Your task to perform on an android device: check google app version Image 0: 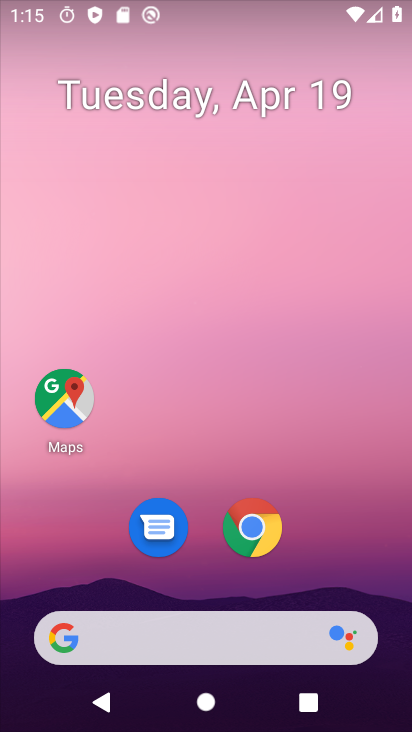
Step 0: drag from (319, 575) to (318, 261)
Your task to perform on an android device: check google app version Image 1: 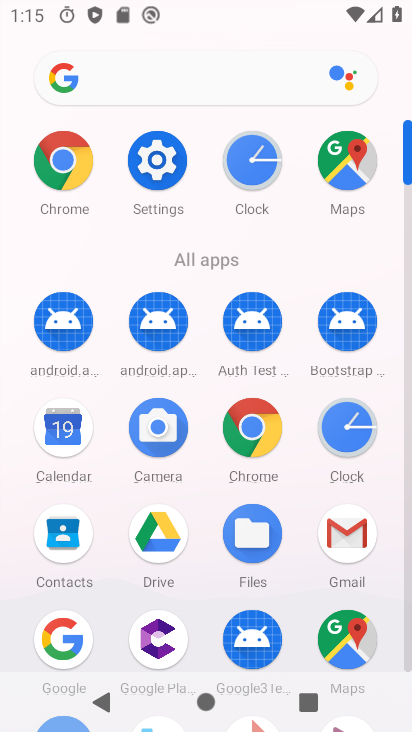
Step 1: drag from (204, 516) to (209, 419)
Your task to perform on an android device: check google app version Image 2: 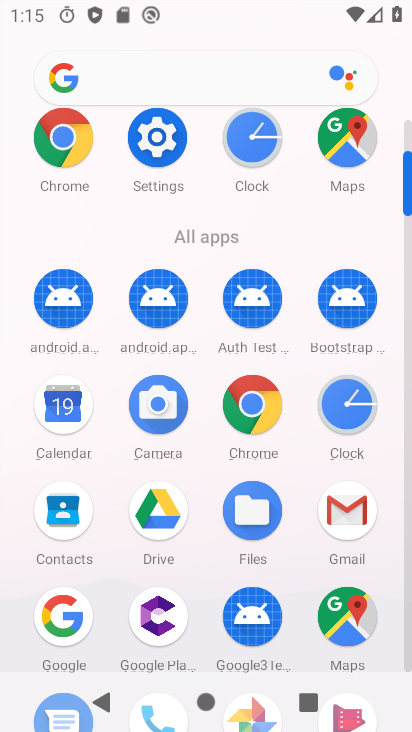
Step 2: click (41, 602)
Your task to perform on an android device: check google app version Image 3: 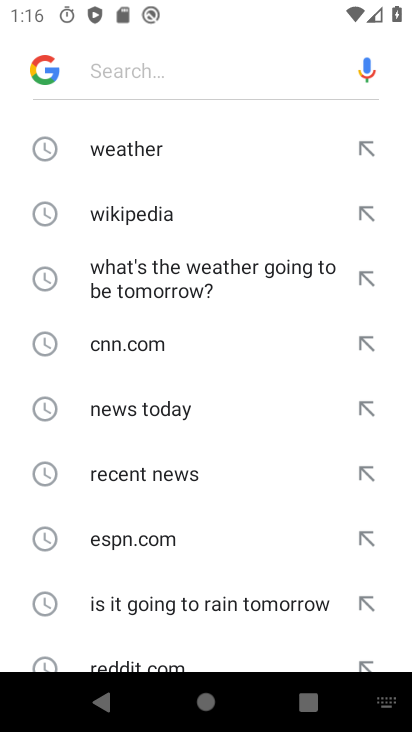
Step 3: press home button
Your task to perform on an android device: check google app version Image 4: 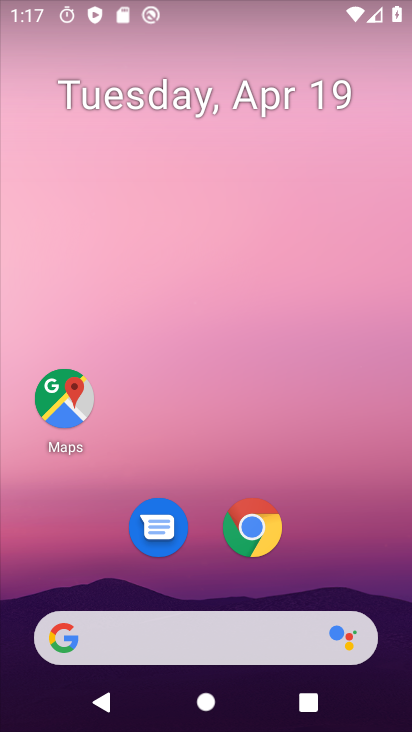
Step 4: drag from (347, 588) to (158, 57)
Your task to perform on an android device: check google app version Image 5: 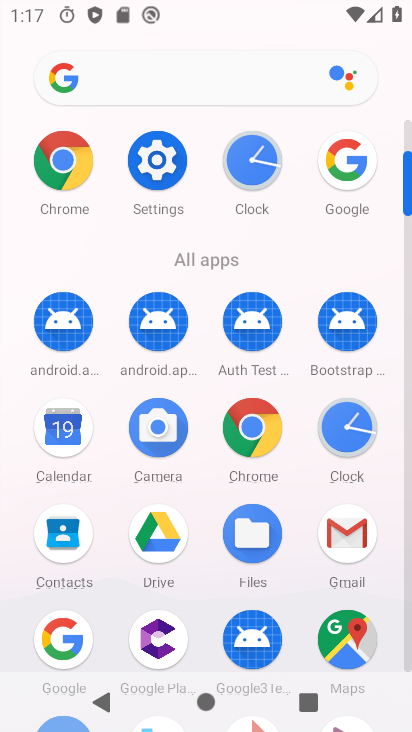
Step 5: click (58, 648)
Your task to perform on an android device: check google app version Image 6: 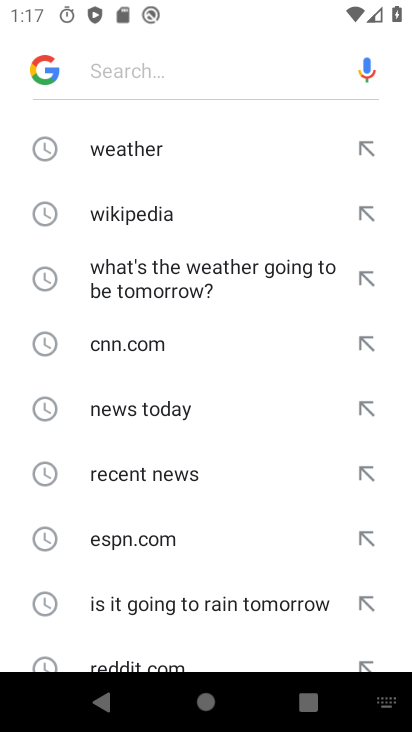
Step 6: press back button
Your task to perform on an android device: check google app version Image 7: 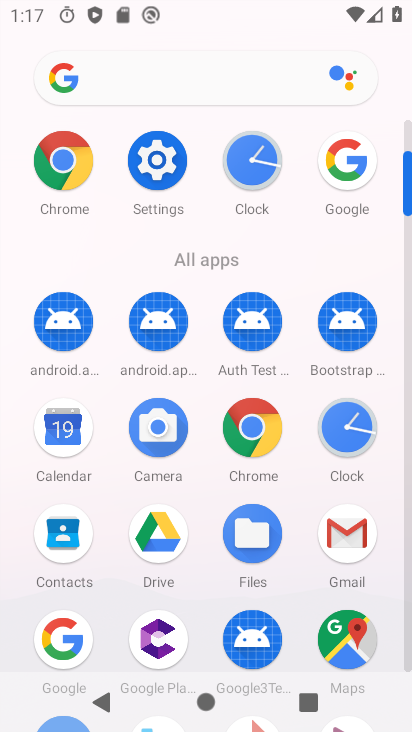
Step 7: click (59, 638)
Your task to perform on an android device: check google app version Image 8: 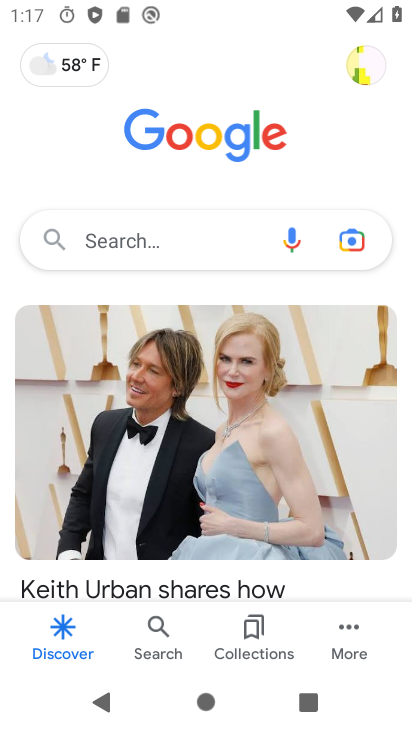
Step 8: click (345, 631)
Your task to perform on an android device: check google app version Image 9: 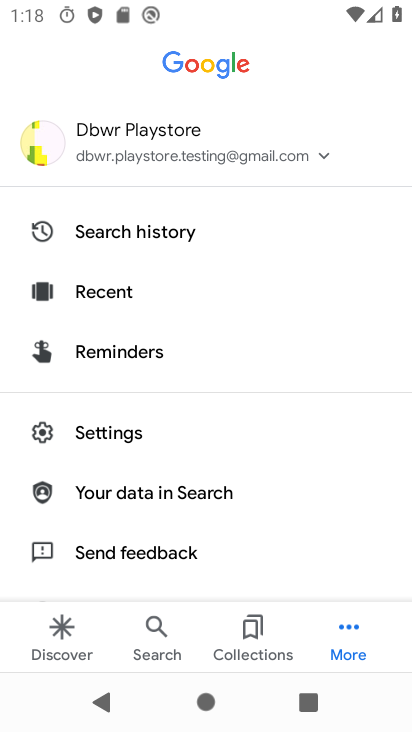
Step 9: drag from (313, 546) to (240, 218)
Your task to perform on an android device: check google app version Image 10: 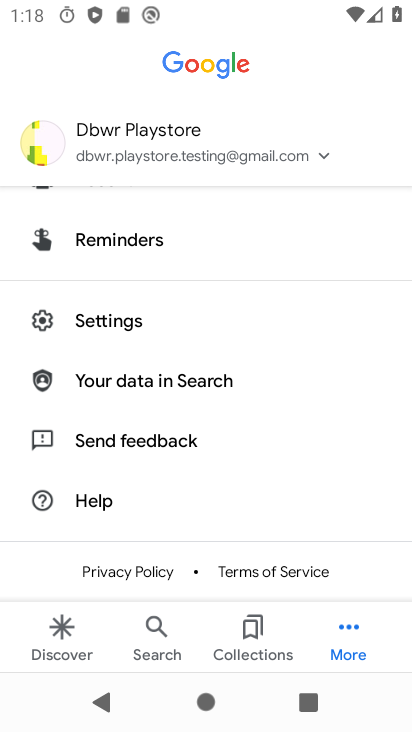
Step 10: click (117, 312)
Your task to perform on an android device: check google app version Image 11: 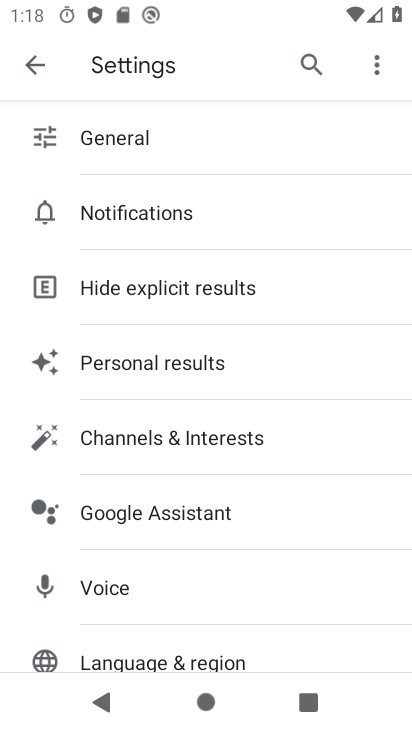
Step 11: click (84, 121)
Your task to perform on an android device: check google app version Image 12: 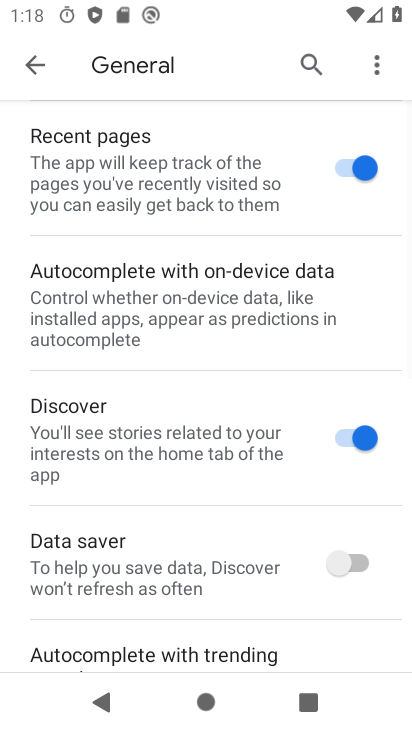
Step 12: drag from (174, 491) to (199, 159)
Your task to perform on an android device: check google app version Image 13: 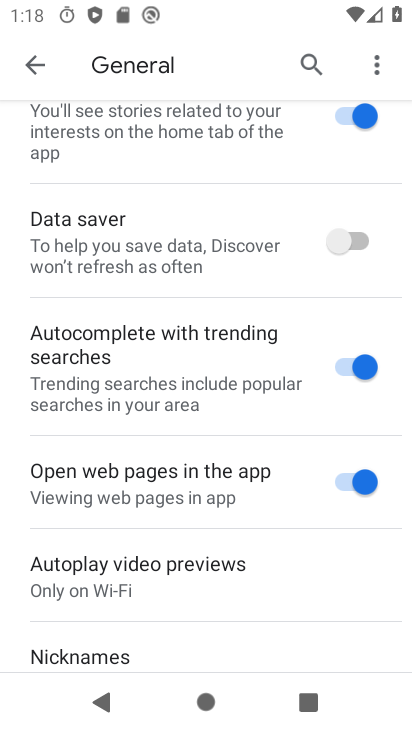
Step 13: drag from (153, 599) to (147, 90)
Your task to perform on an android device: check google app version Image 14: 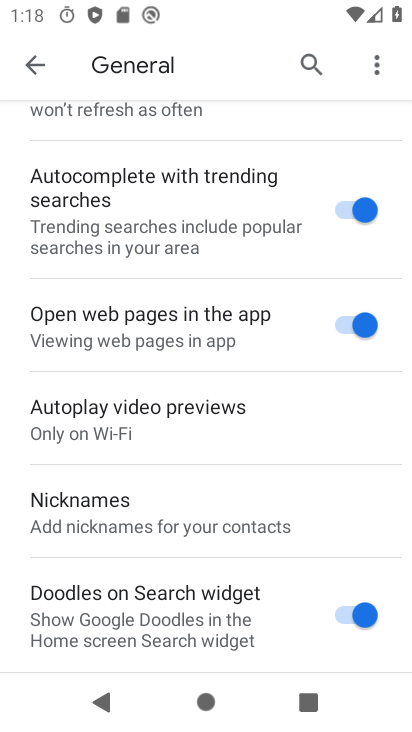
Step 14: press home button
Your task to perform on an android device: check google app version Image 15: 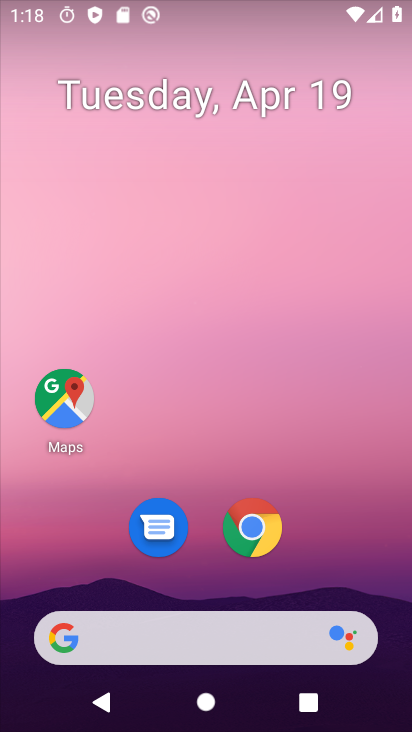
Step 15: drag from (311, 577) to (268, 2)
Your task to perform on an android device: check google app version Image 16: 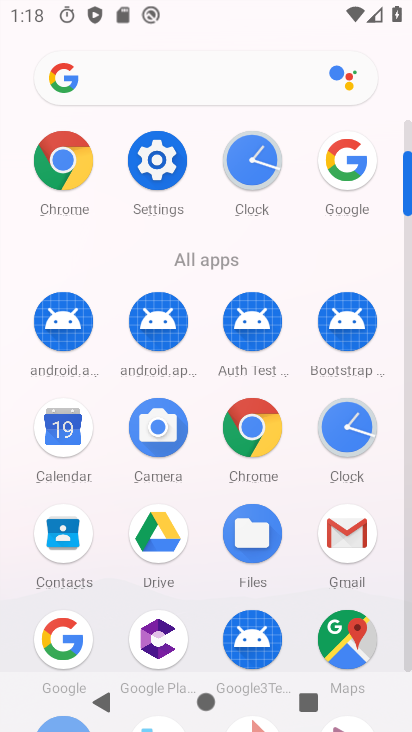
Step 16: click (61, 613)
Your task to perform on an android device: check google app version Image 17: 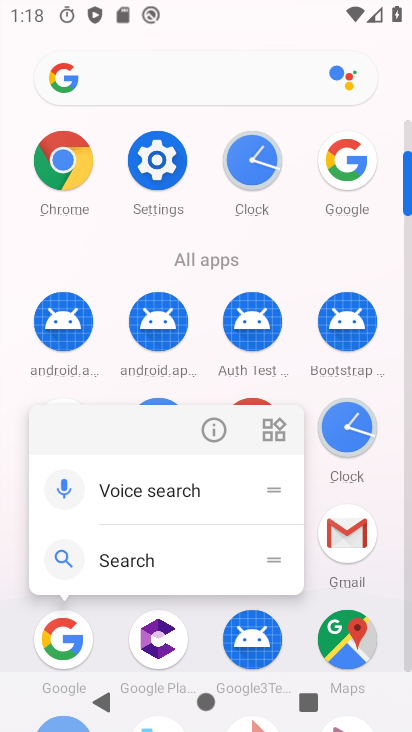
Step 17: click (228, 425)
Your task to perform on an android device: check google app version Image 18: 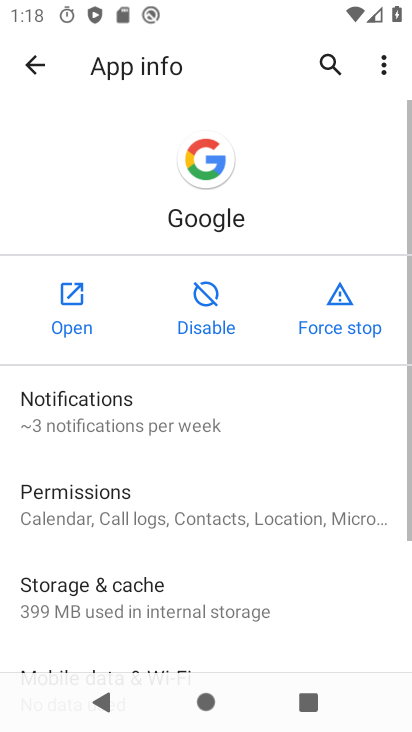
Step 18: drag from (191, 647) to (187, 66)
Your task to perform on an android device: check google app version Image 19: 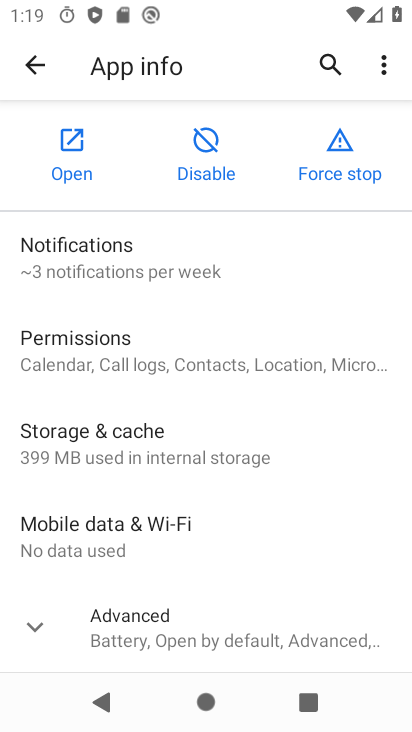
Step 19: click (124, 622)
Your task to perform on an android device: check google app version Image 20: 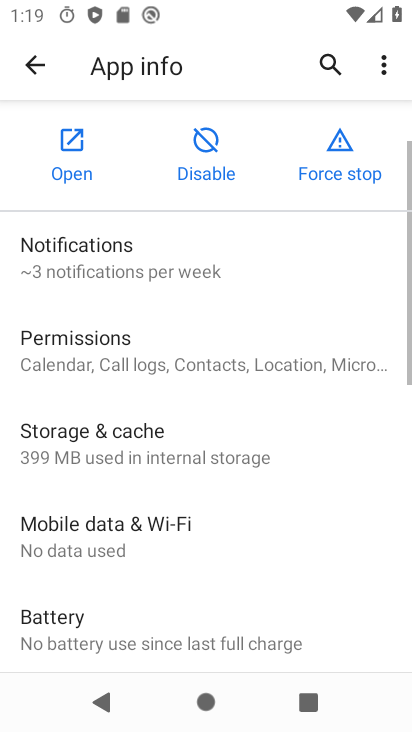
Step 20: task complete